Your task to perform on an android device: toggle javascript in the chrome app Image 0: 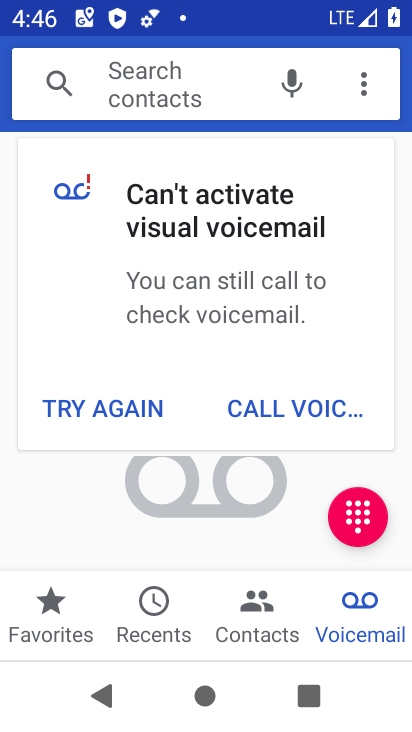
Step 0: press home button
Your task to perform on an android device: toggle javascript in the chrome app Image 1: 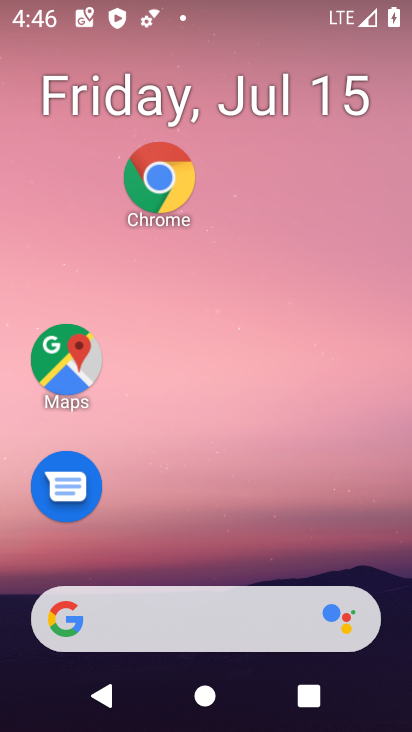
Step 1: click (164, 185)
Your task to perform on an android device: toggle javascript in the chrome app Image 2: 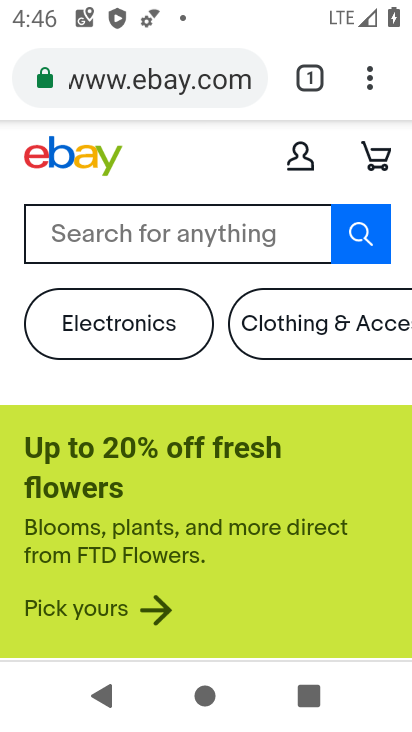
Step 2: click (373, 74)
Your task to perform on an android device: toggle javascript in the chrome app Image 3: 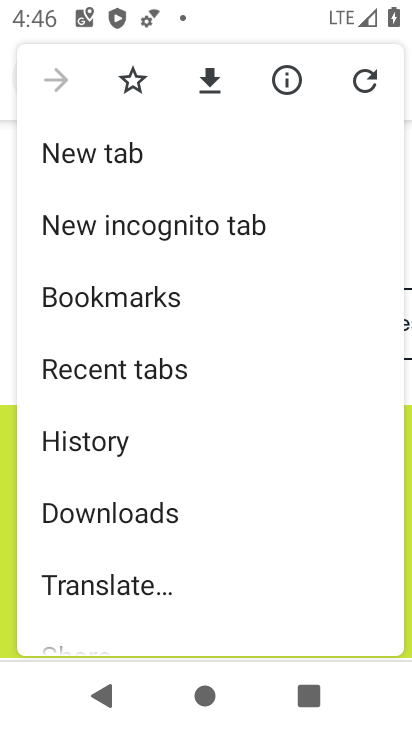
Step 3: drag from (155, 531) to (174, 300)
Your task to perform on an android device: toggle javascript in the chrome app Image 4: 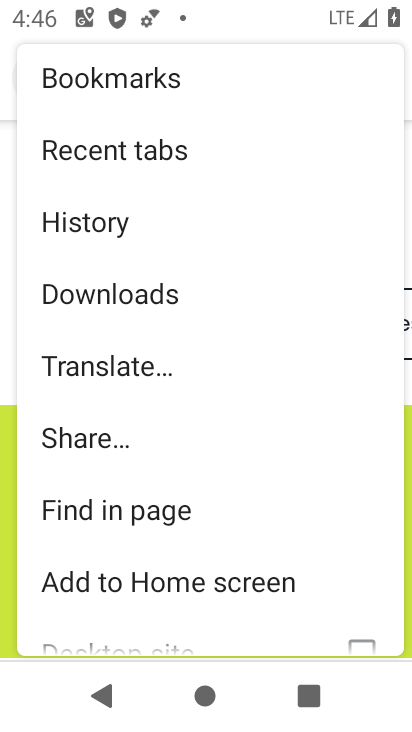
Step 4: drag from (130, 544) to (180, 317)
Your task to perform on an android device: toggle javascript in the chrome app Image 5: 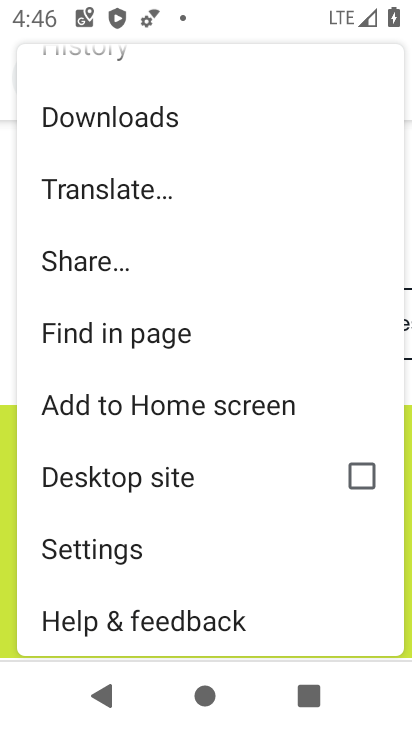
Step 5: click (93, 556)
Your task to perform on an android device: toggle javascript in the chrome app Image 6: 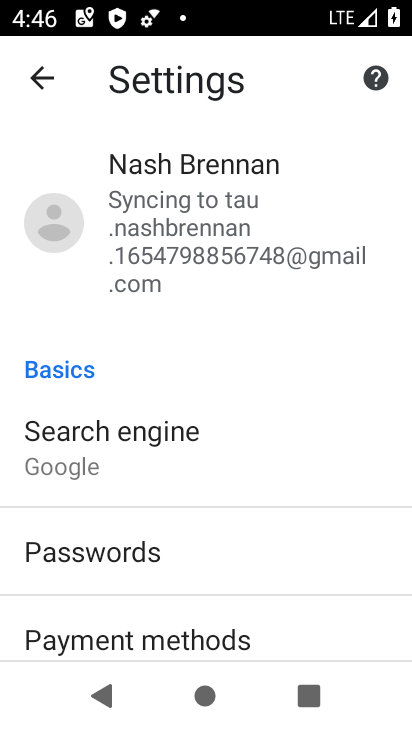
Step 6: drag from (116, 533) to (123, 318)
Your task to perform on an android device: toggle javascript in the chrome app Image 7: 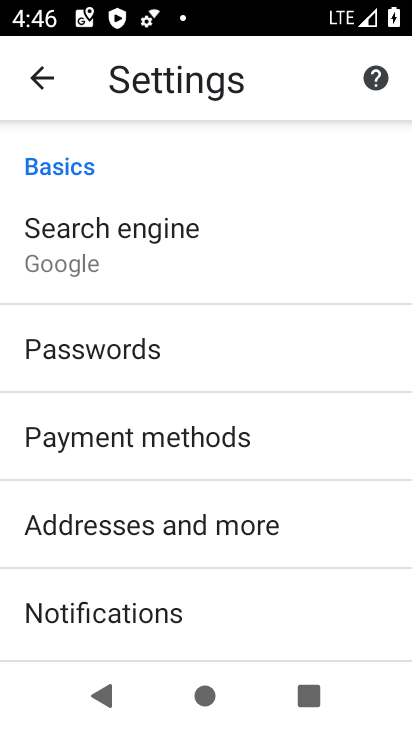
Step 7: drag from (87, 417) to (99, 345)
Your task to perform on an android device: toggle javascript in the chrome app Image 8: 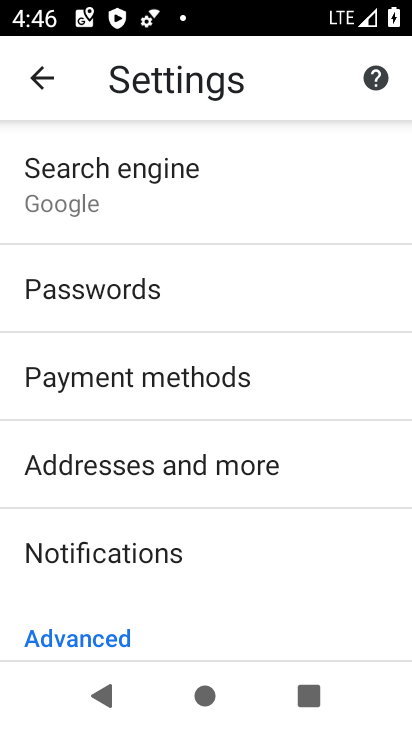
Step 8: click (191, 365)
Your task to perform on an android device: toggle javascript in the chrome app Image 9: 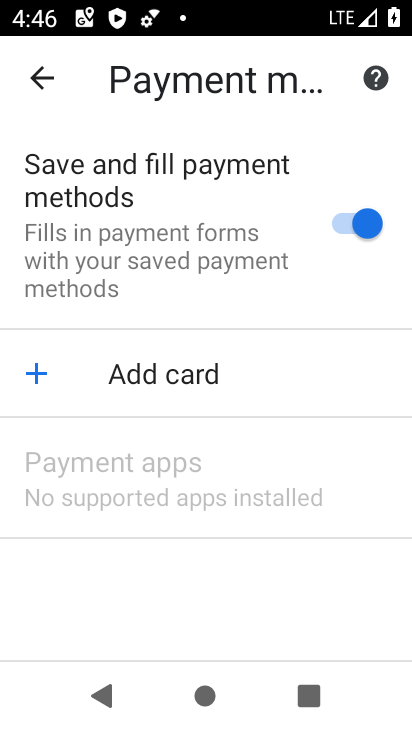
Step 9: drag from (93, 574) to (189, 206)
Your task to perform on an android device: toggle javascript in the chrome app Image 10: 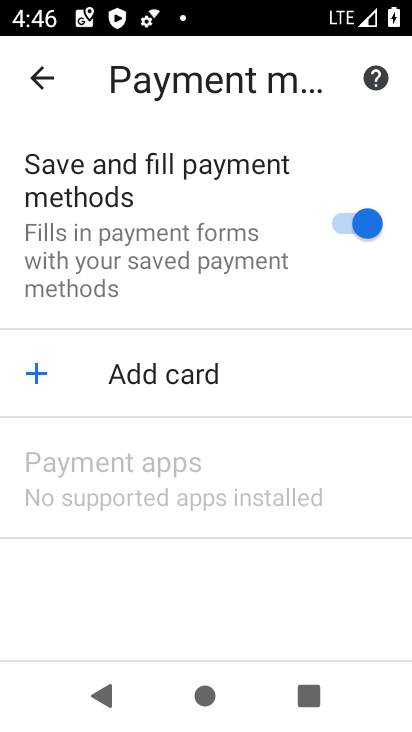
Step 10: click (35, 76)
Your task to perform on an android device: toggle javascript in the chrome app Image 11: 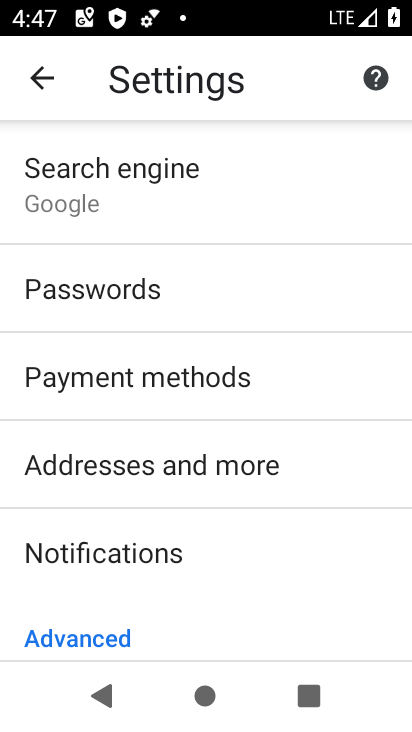
Step 11: drag from (176, 525) to (177, 267)
Your task to perform on an android device: toggle javascript in the chrome app Image 12: 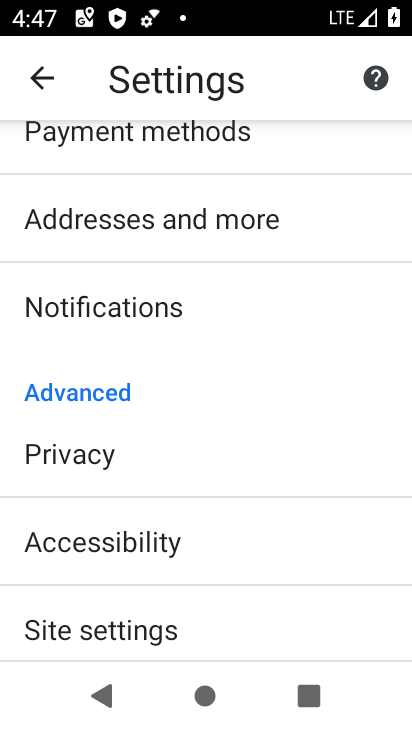
Step 12: click (211, 148)
Your task to perform on an android device: toggle javascript in the chrome app Image 13: 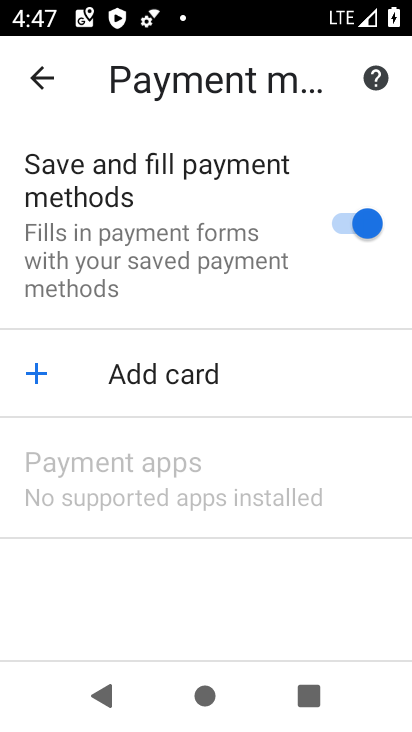
Step 13: click (42, 84)
Your task to perform on an android device: toggle javascript in the chrome app Image 14: 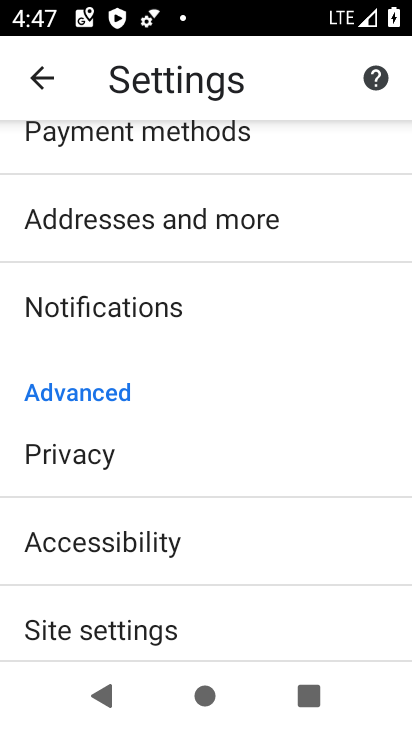
Step 14: drag from (130, 584) to (169, 310)
Your task to perform on an android device: toggle javascript in the chrome app Image 15: 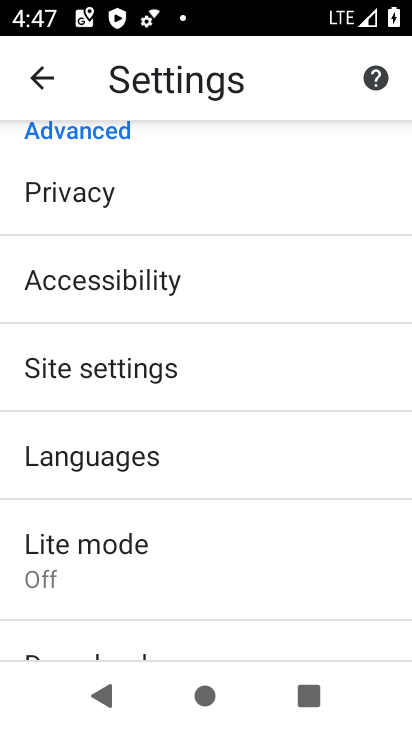
Step 15: click (130, 378)
Your task to perform on an android device: toggle javascript in the chrome app Image 16: 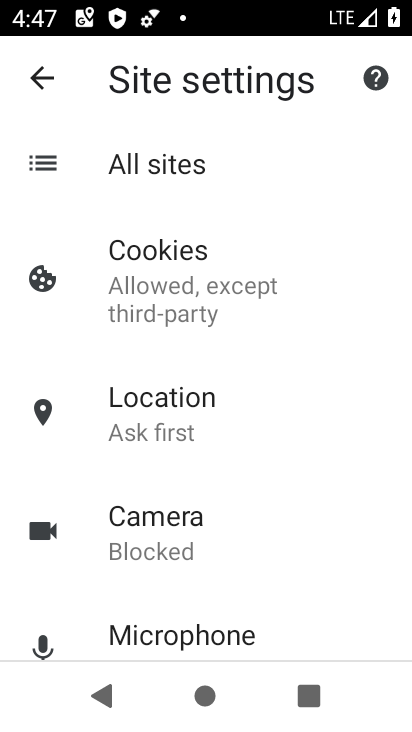
Step 16: drag from (260, 476) to (274, 195)
Your task to perform on an android device: toggle javascript in the chrome app Image 17: 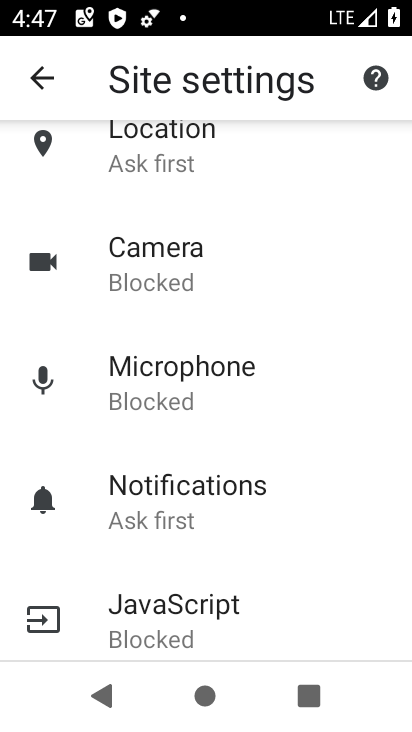
Step 17: click (175, 635)
Your task to perform on an android device: toggle javascript in the chrome app Image 18: 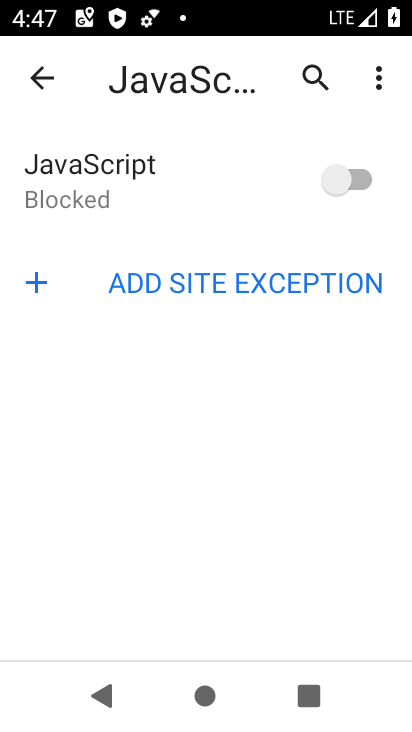
Step 18: click (360, 174)
Your task to perform on an android device: toggle javascript in the chrome app Image 19: 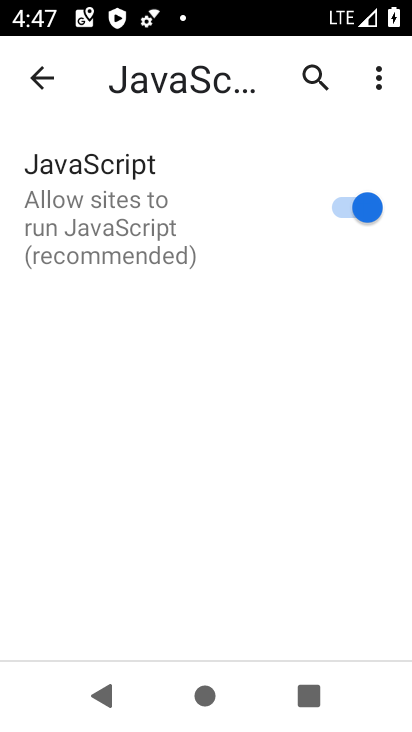
Step 19: task complete